Your task to perform on an android device: check data usage Image 0: 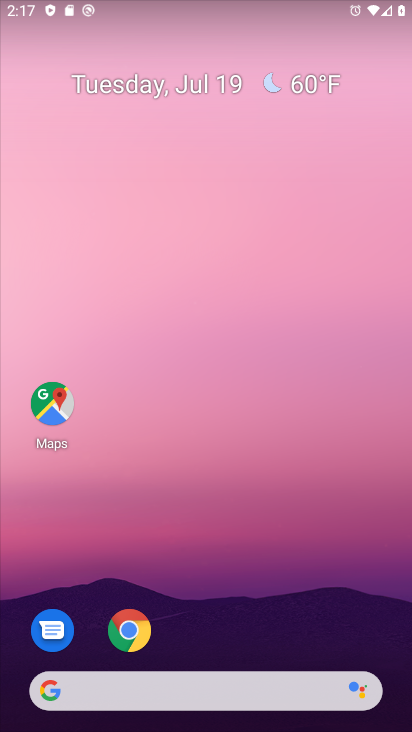
Step 0: drag from (203, 574) to (121, 177)
Your task to perform on an android device: check data usage Image 1: 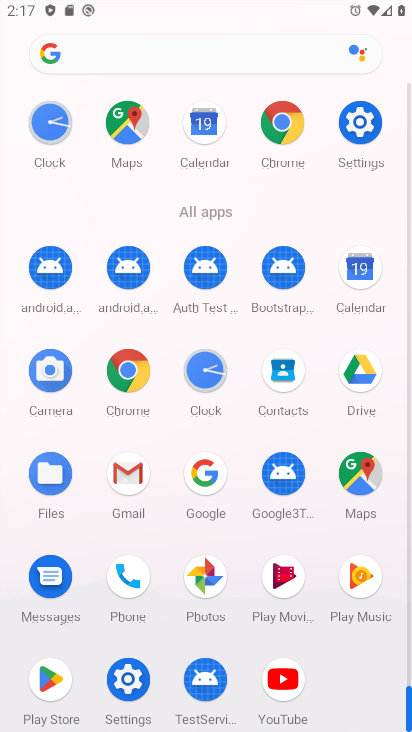
Step 1: click (356, 125)
Your task to perform on an android device: check data usage Image 2: 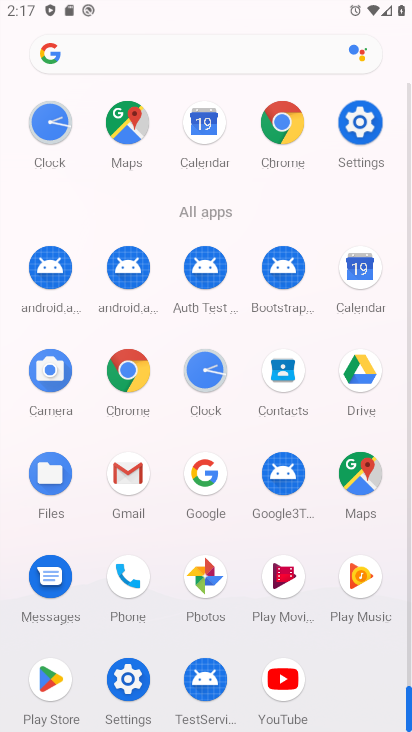
Step 2: click (359, 123)
Your task to perform on an android device: check data usage Image 3: 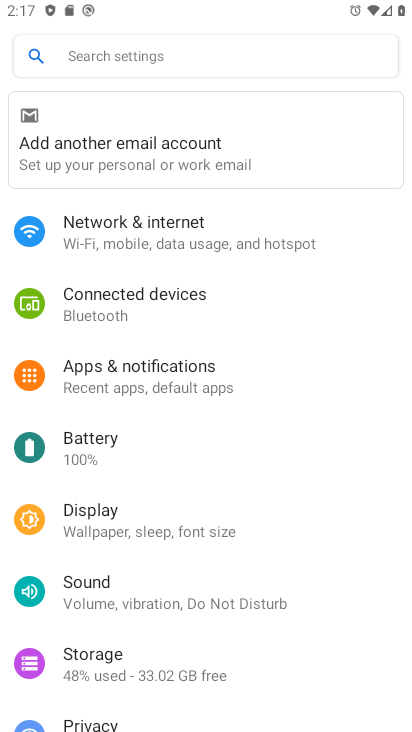
Step 3: click (122, 235)
Your task to perform on an android device: check data usage Image 4: 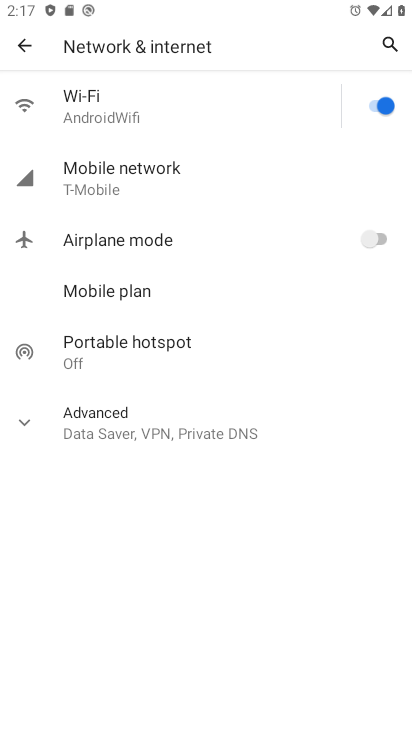
Step 4: click (97, 179)
Your task to perform on an android device: check data usage Image 5: 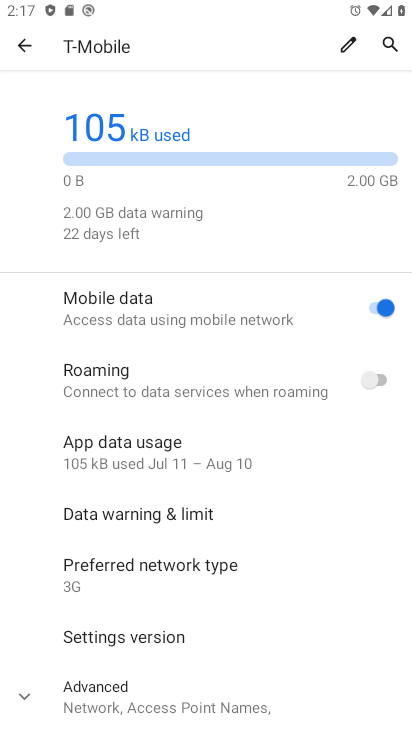
Step 5: drag from (129, 580) to (86, 274)
Your task to perform on an android device: check data usage Image 6: 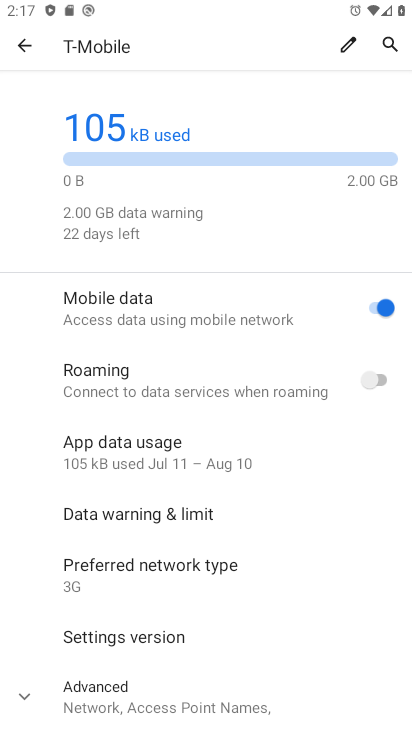
Step 6: drag from (108, 518) to (66, 201)
Your task to perform on an android device: check data usage Image 7: 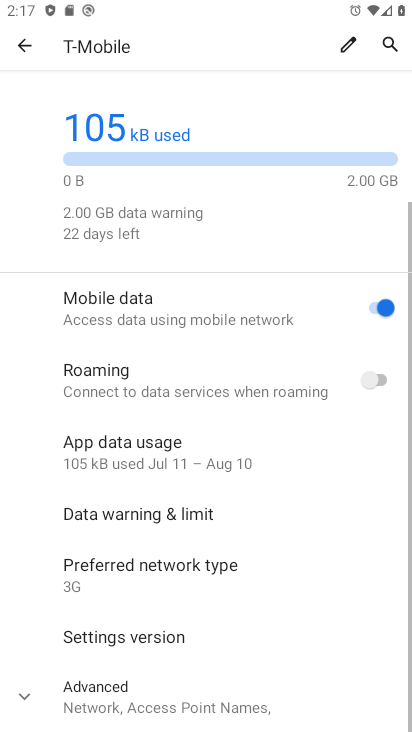
Step 7: drag from (138, 494) to (105, 297)
Your task to perform on an android device: check data usage Image 8: 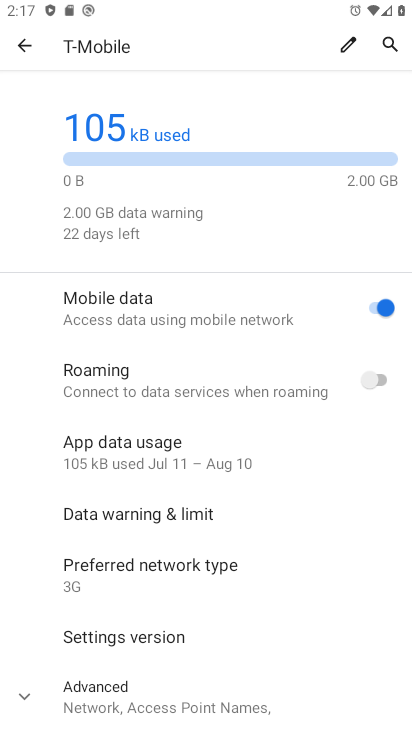
Step 8: click (112, 448)
Your task to perform on an android device: check data usage Image 9: 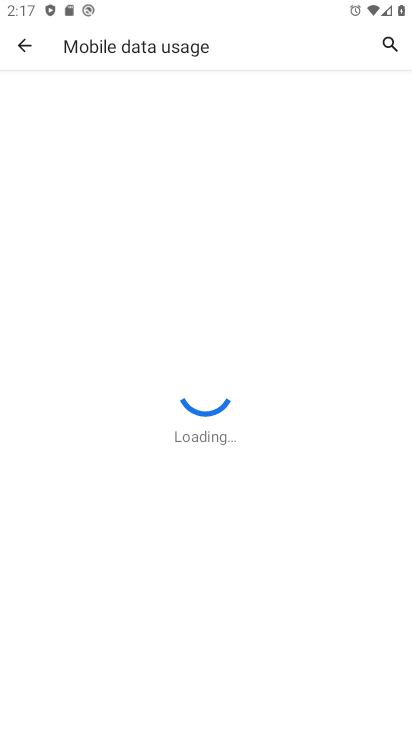
Step 9: task complete